Your task to perform on an android device: turn on javascript in the chrome app Image 0: 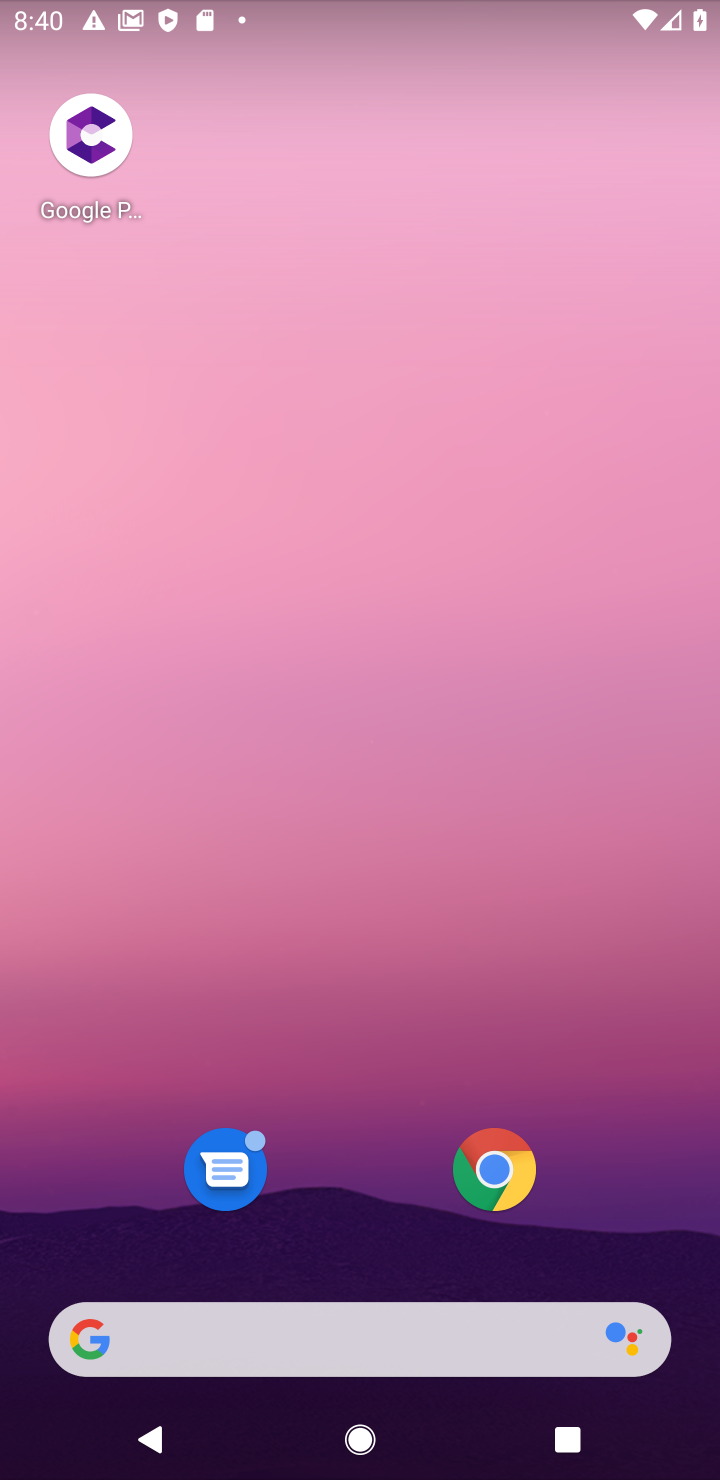
Step 0: click (502, 1168)
Your task to perform on an android device: turn on javascript in the chrome app Image 1: 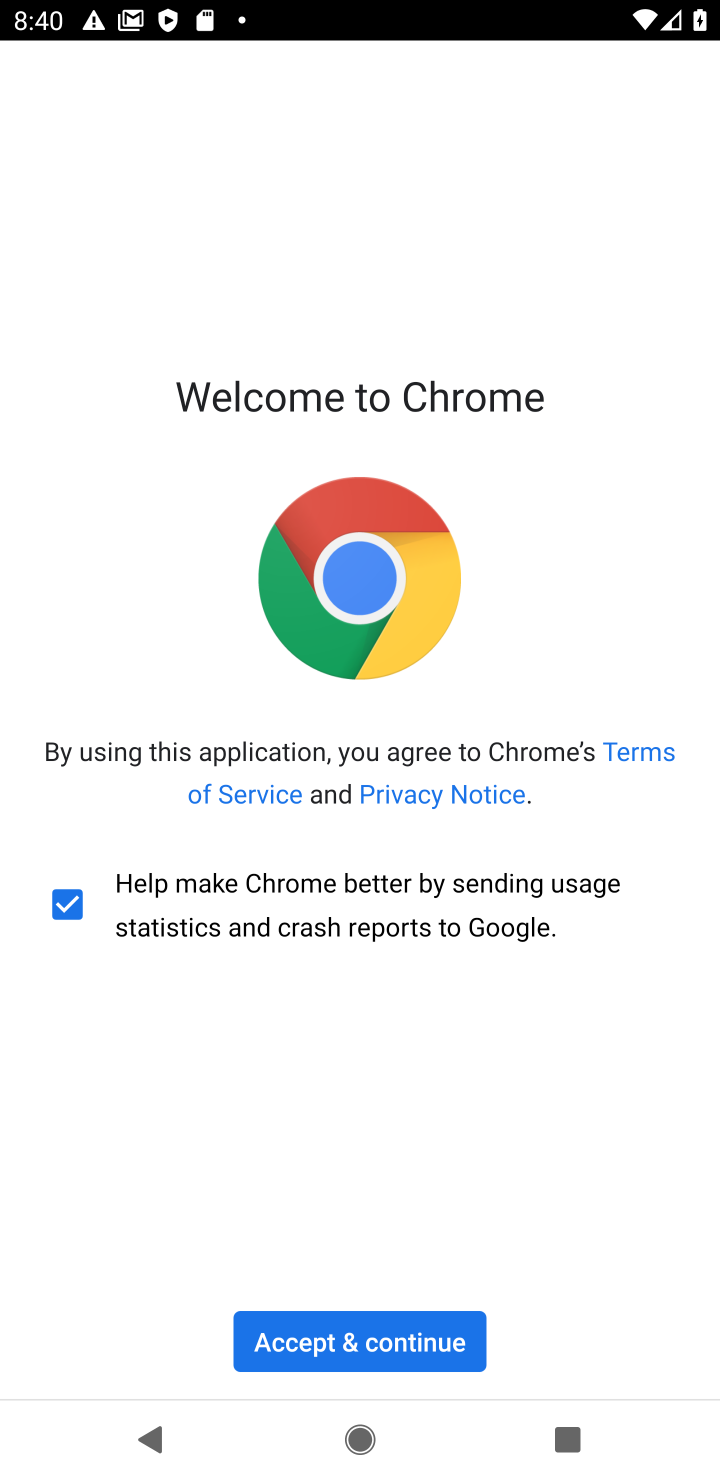
Step 1: click (406, 1332)
Your task to perform on an android device: turn on javascript in the chrome app Image 2: 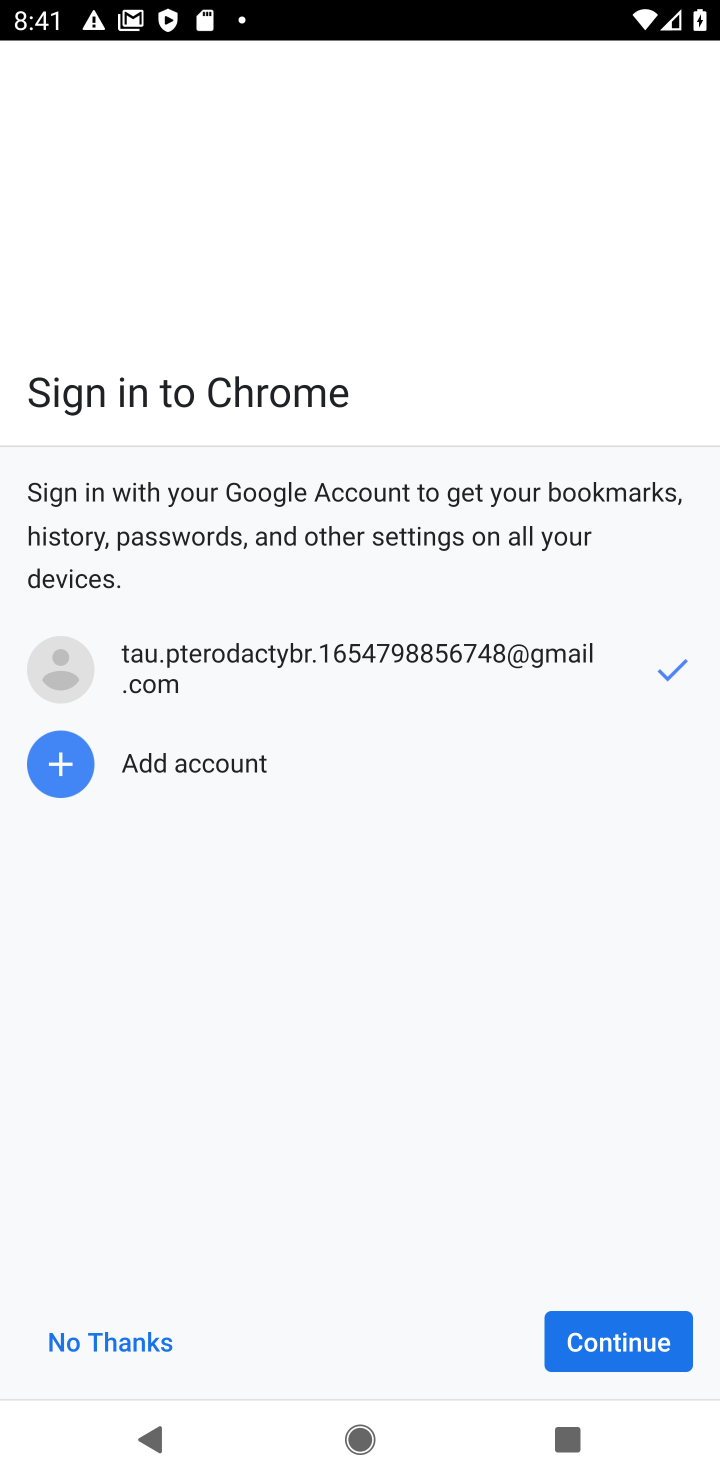
Step 2: click (128, 1337)
Your task to perform on an android device: turn on javascript in the chrome app Image 3: 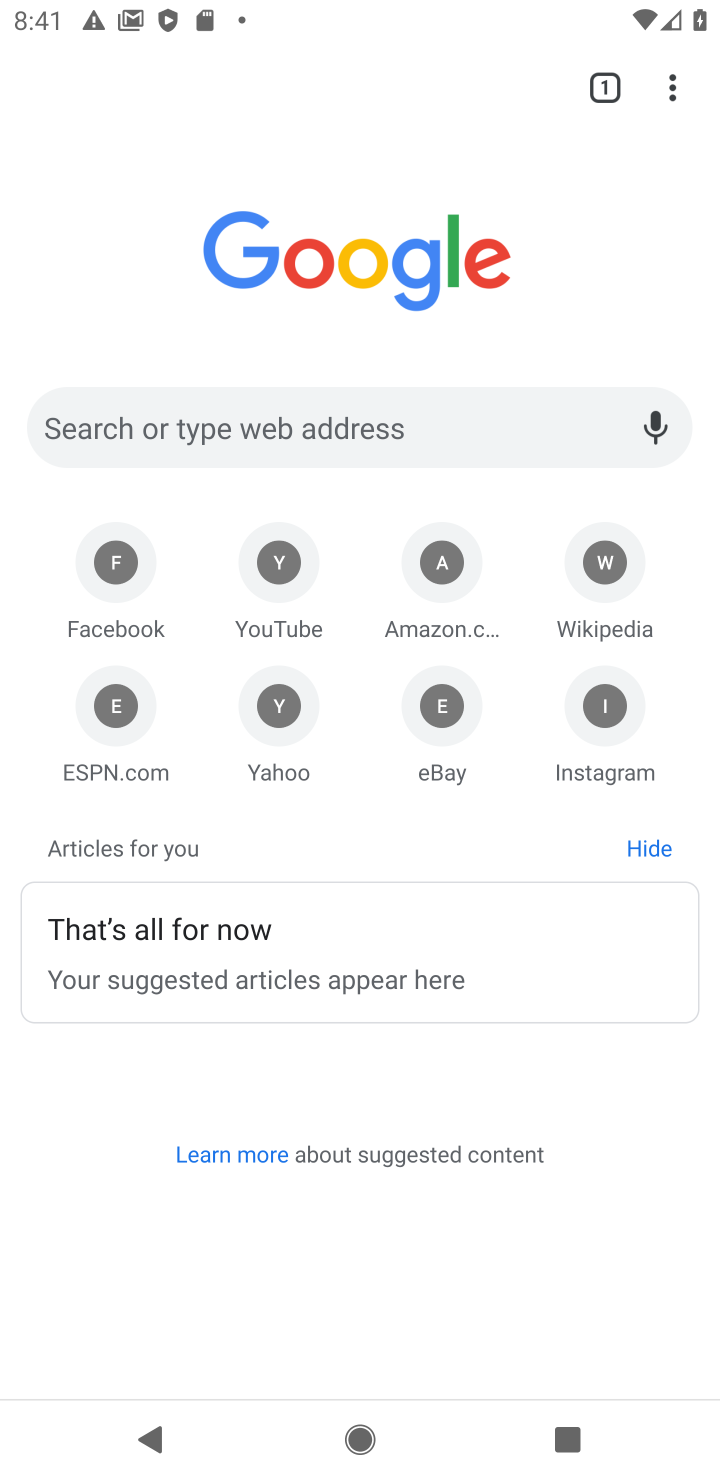
Step 3: click (670, 94)
Your task to perform on an android device: turn on javascript in the chrome app Image 4: 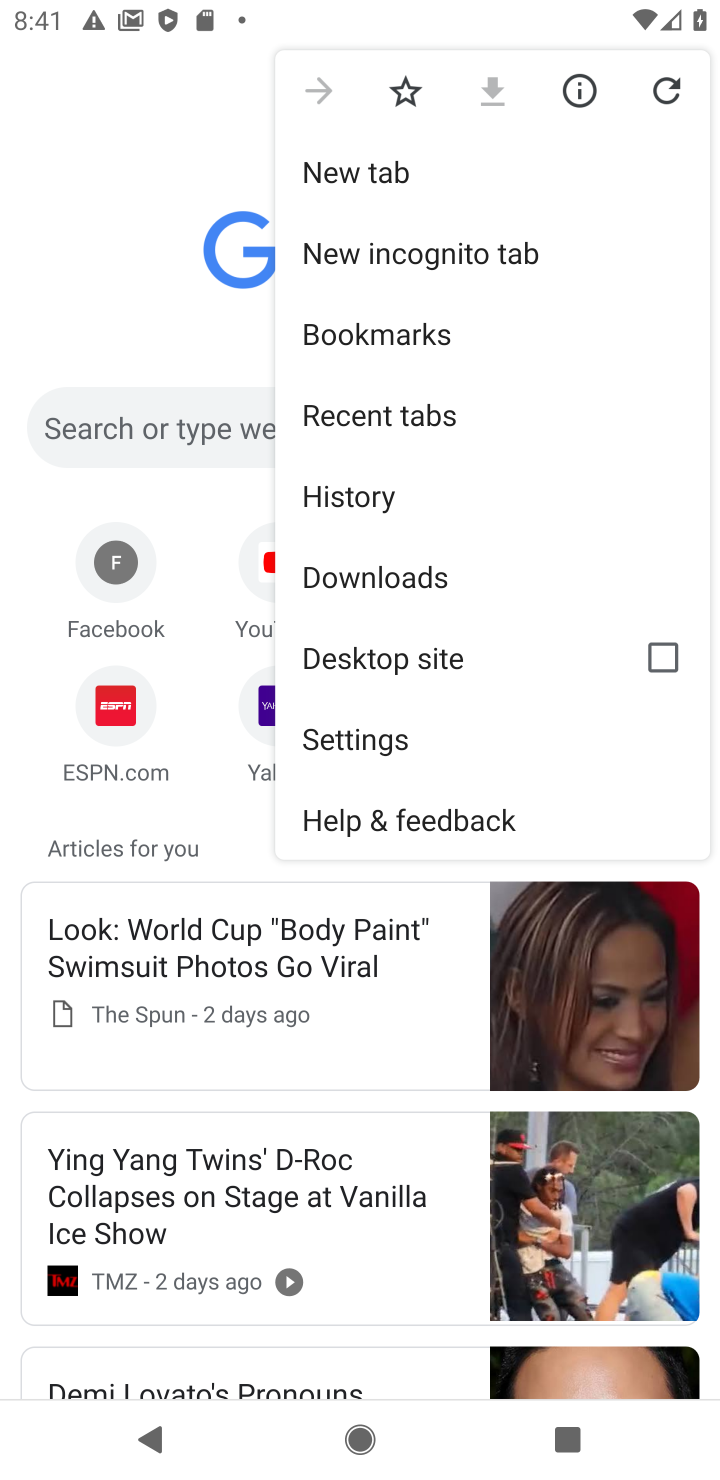
Step 4: click (373, 740)
Your task to perform on an android device: turn on javascript in the chrome app Image 5: 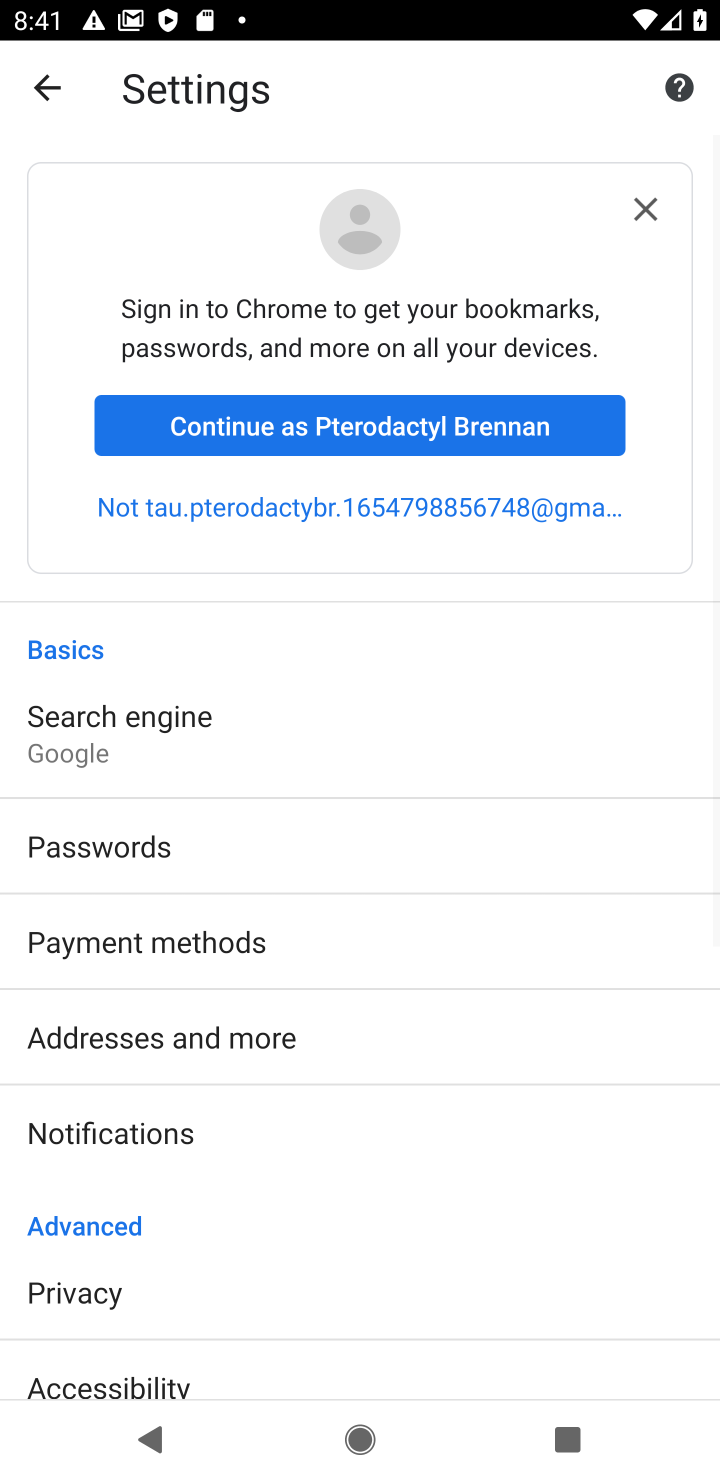
Step 5: drag from (315, 1343) to (300, 788)
Your task to perform on an android device: turn on javascript in the chrome app Image 6: 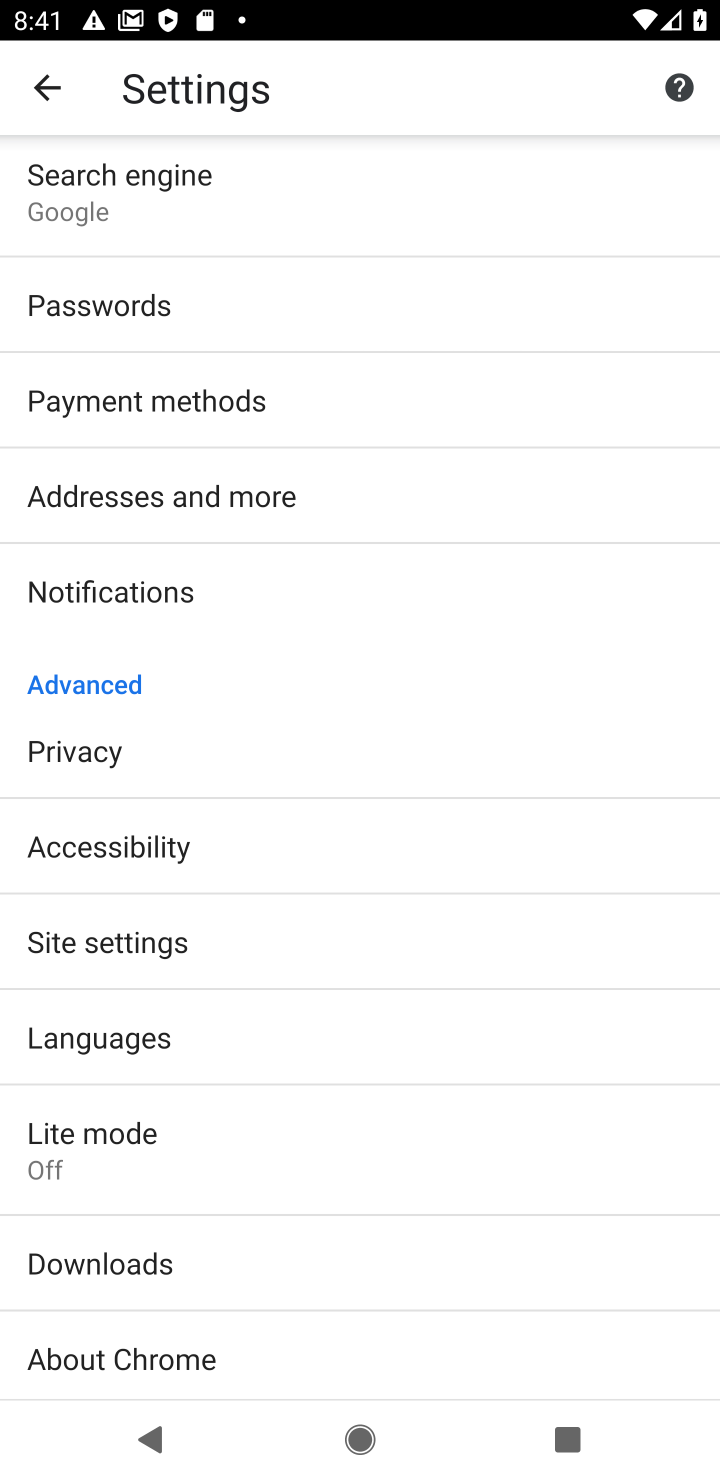
Step 6: click (82, 957)
Your task to perform on an android device: turn on javascript in the chrome app Image 7: 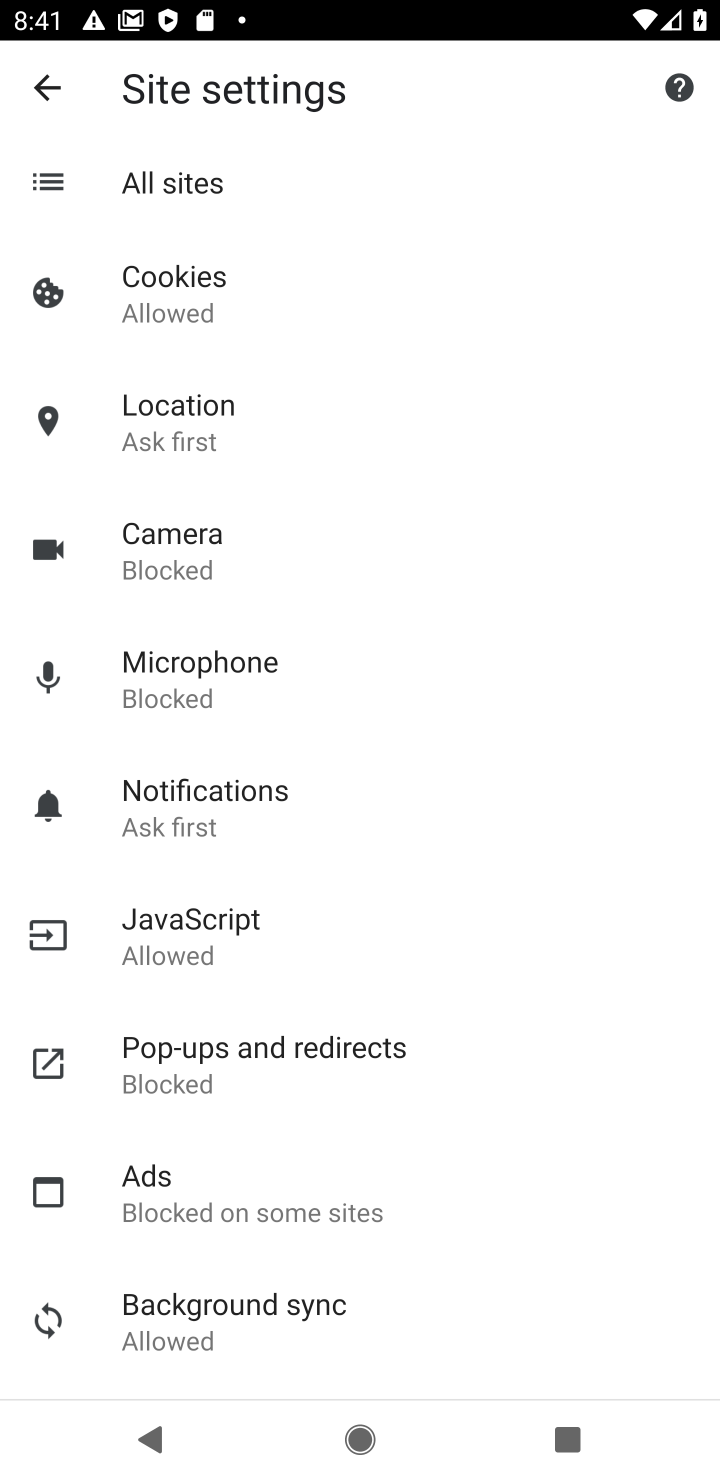
Step 7: click (218, 934)
Your task to perform on an android device: turn on javascript in the chrome app Image 8: 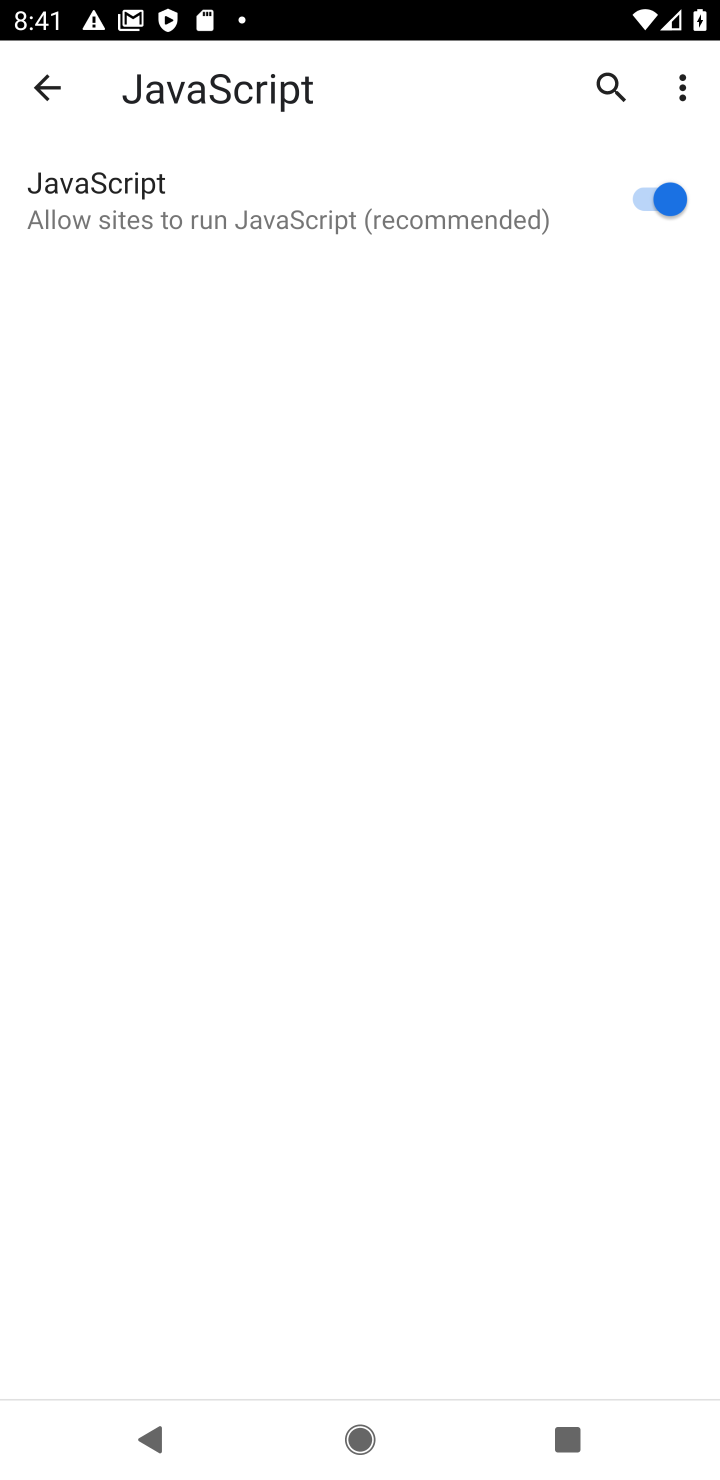
Step 8: task complete